Your task to perform on an android device: turn off improve location accuracy Image 0: 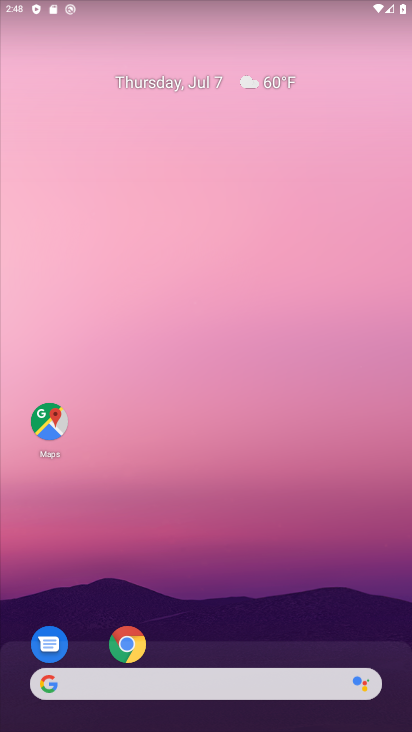
Step 0: drag from (211, 456) to (225, 48)
Your task to perform on an android device: turn off improve location accuracy Image 1: 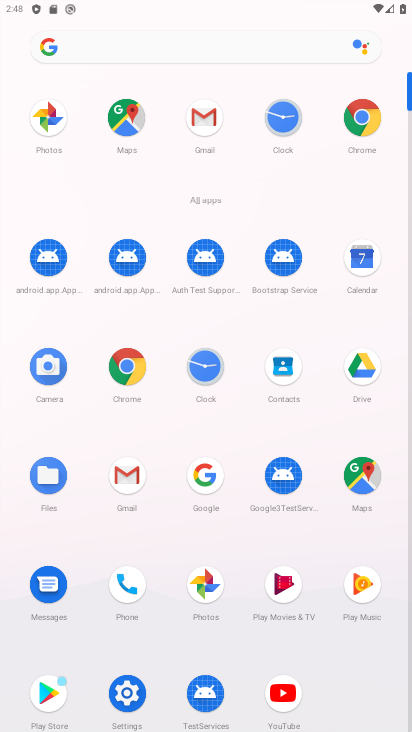
Step 1: click (130, 700)
Your task to perform on an android device: turn off improve location accuracy Image 2: 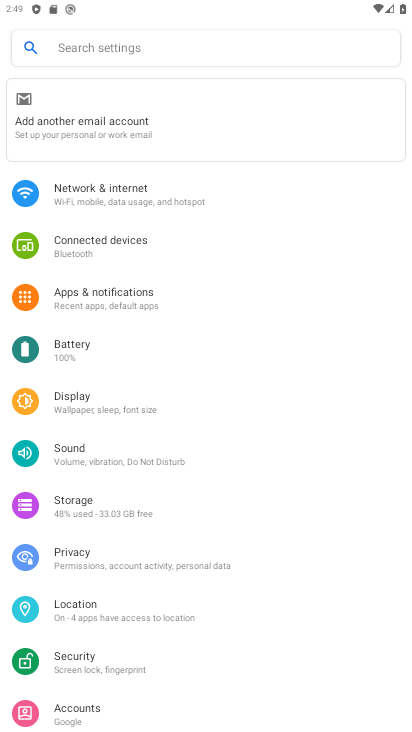
Step 2: click (81, 604)
Your task to perform on an android device: turn off improve location accuracy Image 3: 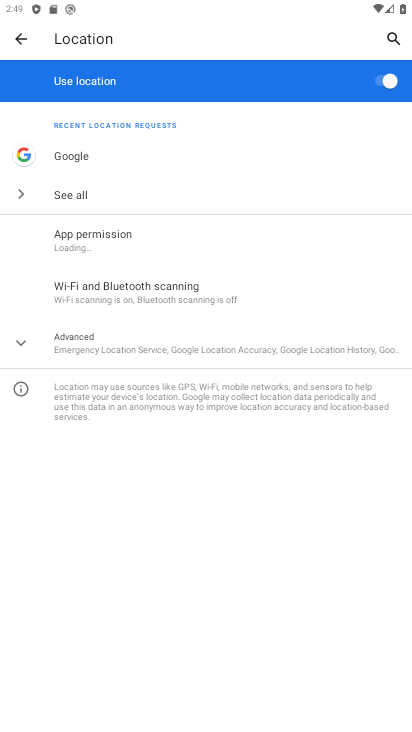
Step 3: click (106, 343)
Your task to perform on an android device: turn off improve location accuracy Image 4: 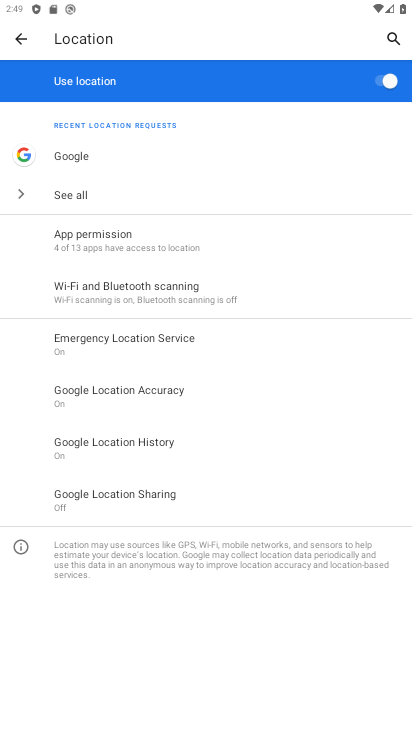
Step 4: click (108, 388)
Your task to perform on an android device: turn off improve location accuracy Image 5: 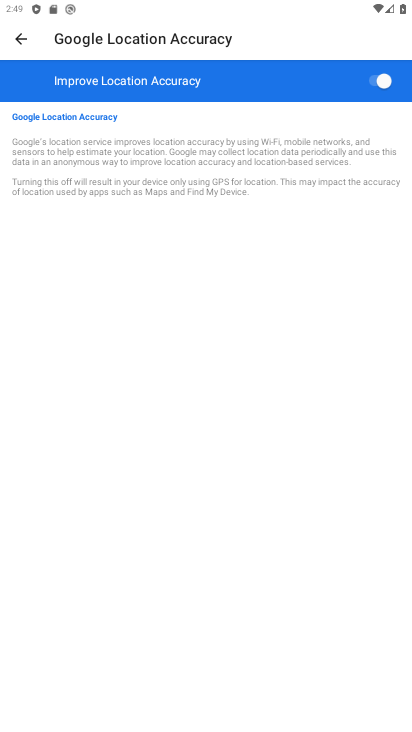
Step 5: click (375, 85)
Your task to perform on an android device: turn off improve location accuracy Image 6: 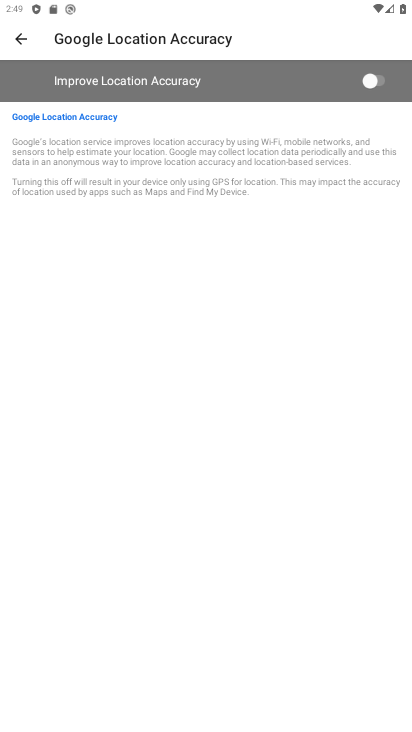
Step 6: task complete